Your task to perform on an android device: Go to calendar. Show me events next week Image 0: 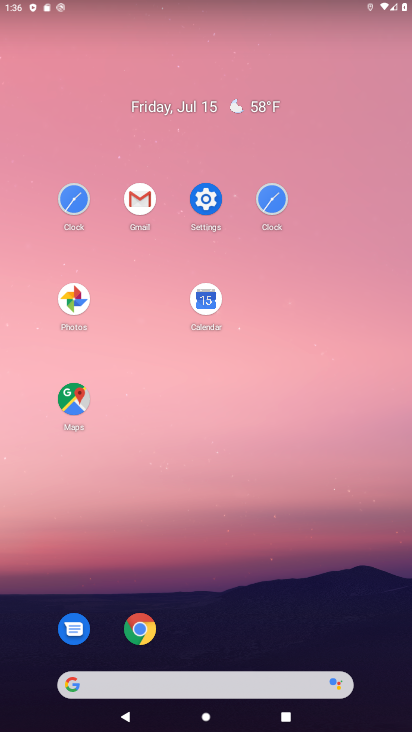
Step 0: click (212, 305)
Your task to perform on an android device: Go to calendar. Show me events next week Image 1: 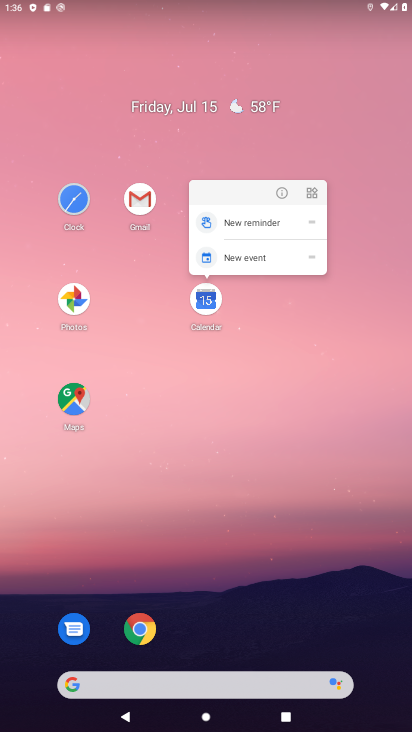
Step 1: click (212, 305)
Your task to perform on an android device: Go to calendar. Show me events next week Image 2: 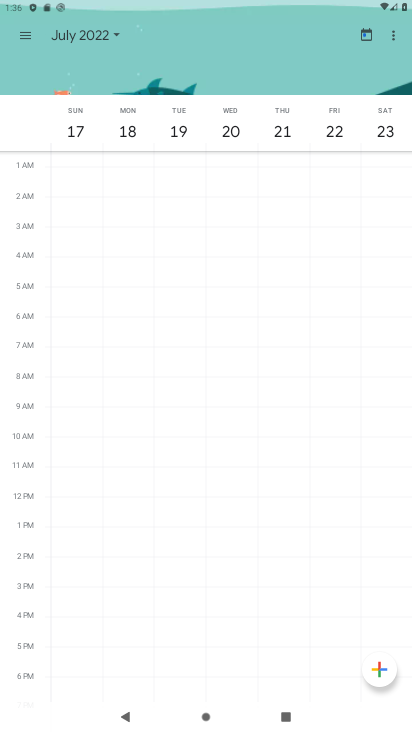
Step 2: task complete